Your task to perform on an android device: turn off improve location accuracy Image 0: 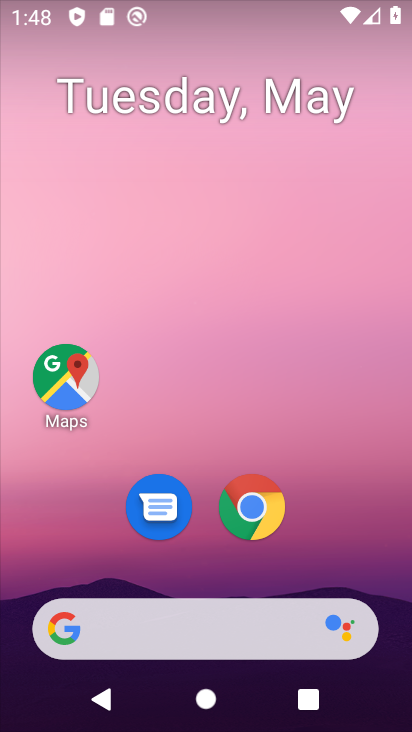
Step 0: drag from (198, 573) to (232, 5)
Your task to perform on an android device: turn off improve location accuracy Image 1: 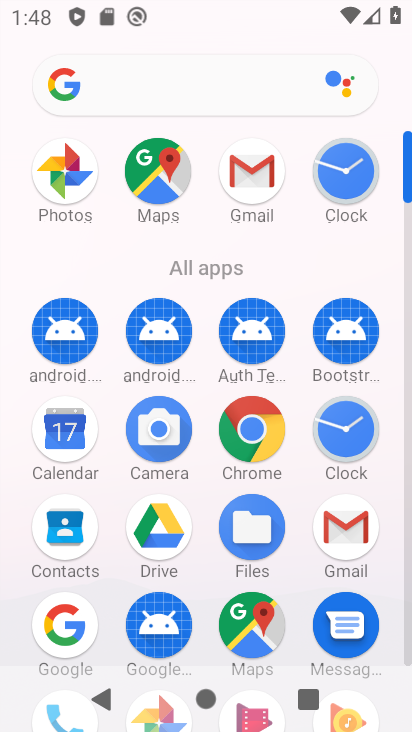
Step 1: drag from (200, 581) to (198, 187)
Your task to perform on an android device: turn off improve location accuracy Image 2: 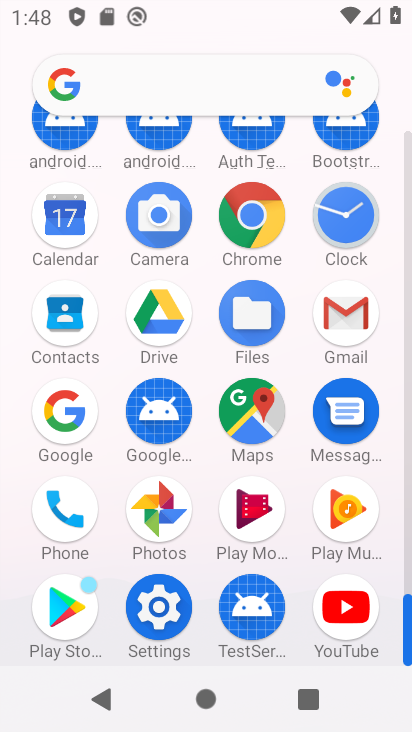
Step 2: click (158, 615)
Your task to perform on an android device: turn off improve location accuracy Image 3: 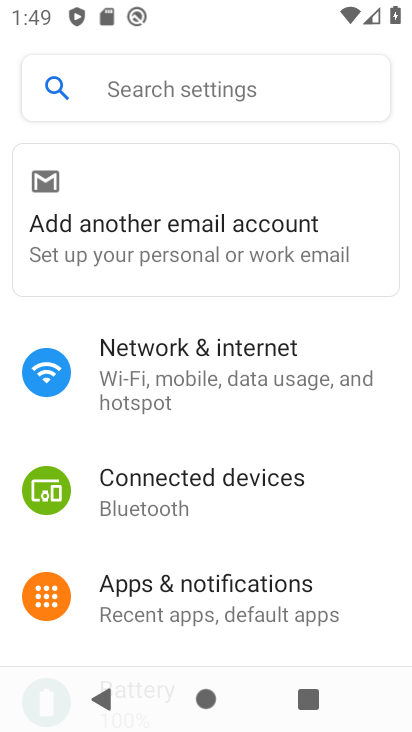
Step 3: drag from (188, 606) to (206, 312)
Your task to perform on an android device: turn off improve location accuracy Image 4: 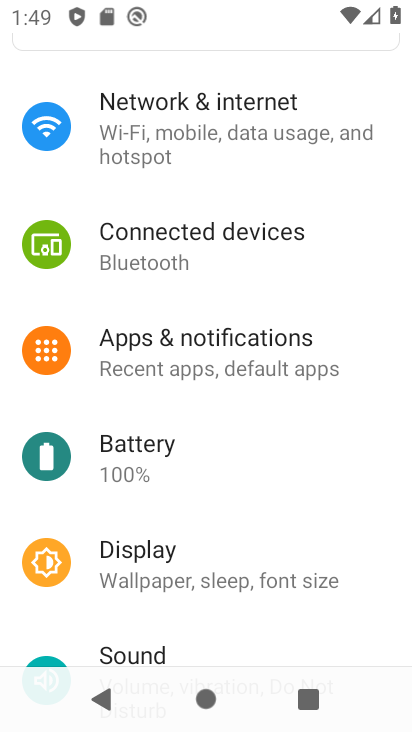
Step 4: drag from (183, 582) to (240, 277)
Your task to perform on an android device: turn off improve location accuracy Image 5: 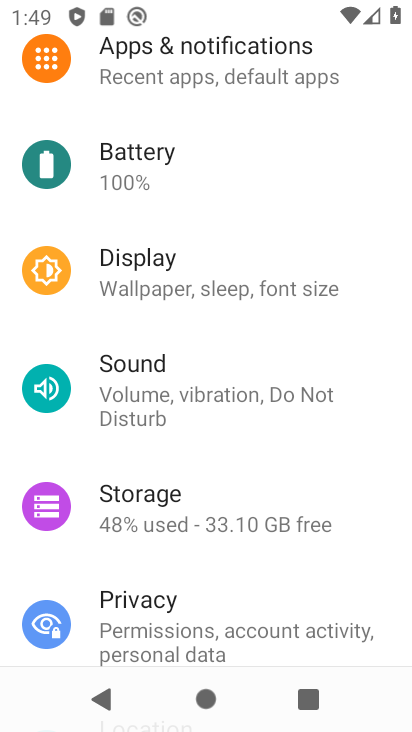
Step 5: drag from (178, 607) to (214, 312)
Your task to perform on an android device: turn off improve location accuracy Image 6: 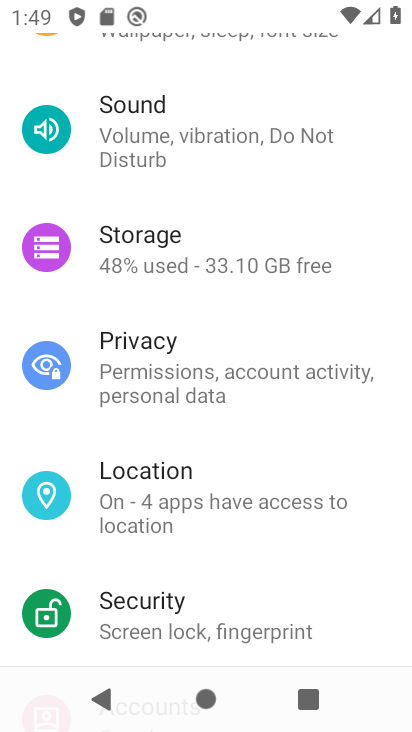
Step 6: click (190, 532)
Your task to perform on an android device: turn off improve location accuracy Image 7: 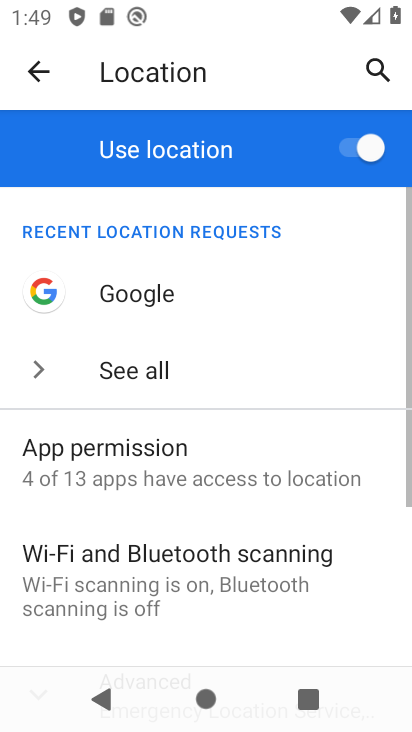
Step 7: drag from (227, 613) to (218, 267)
Your task to perform on an android device: turn off improve location accuracy Image 8: 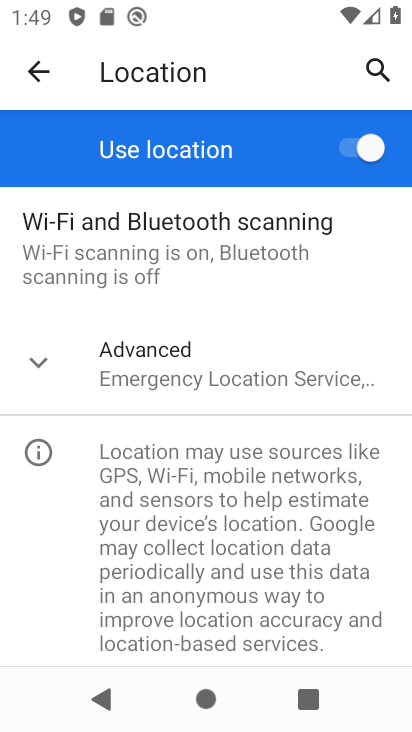
Step 8: click (205, 386)
Your task to perform on an android device: turn off improve location accuracy Image 9: 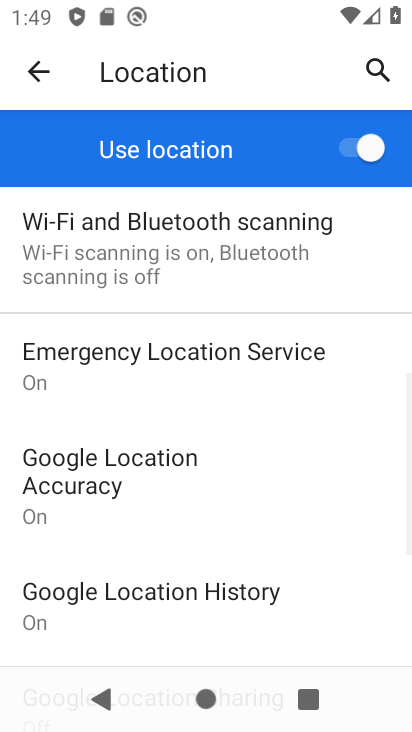
Step 9: click (137, 512)
Your task to perform on an android device: turn off improve location accuracy Image 10: 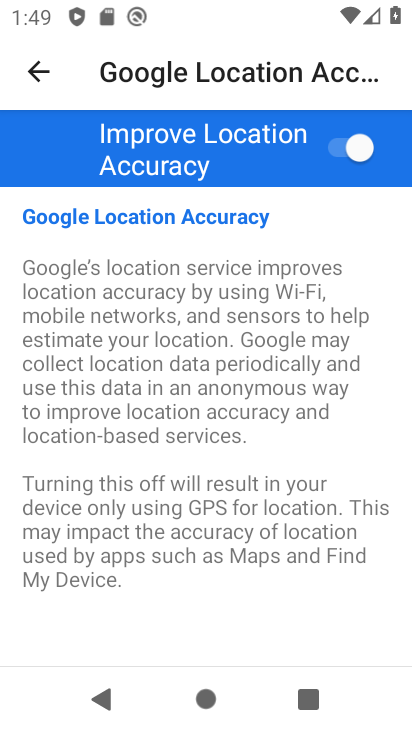
Step 10: click (359, 146)
Your task to perform on an android device: turn off improve location accuracy Image 11: 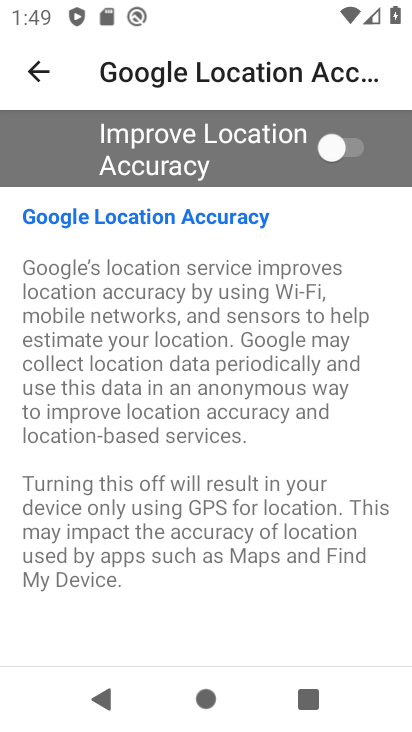
Step 11: task complete